Your task to perform on an android device: empty trash in the gmail app Image 0: 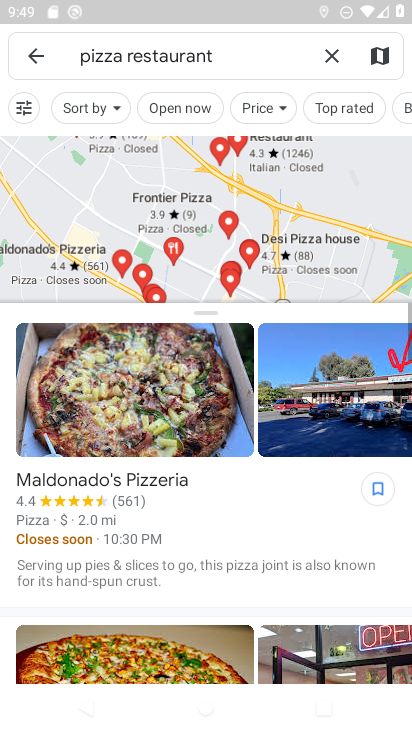
Step 0: press home button
Your task to perform on an android device: empty trash in the gmail app Image 1: 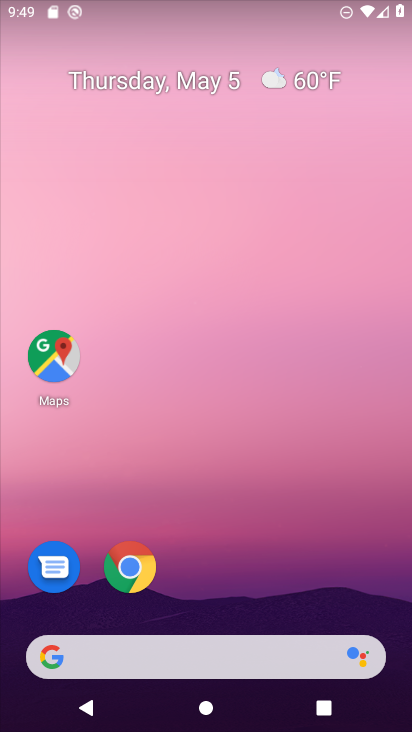
Step 1: drag from (226, 713) to (226, 94)
Your task to perform on an android device: empty trash in the gmail app Image 2: 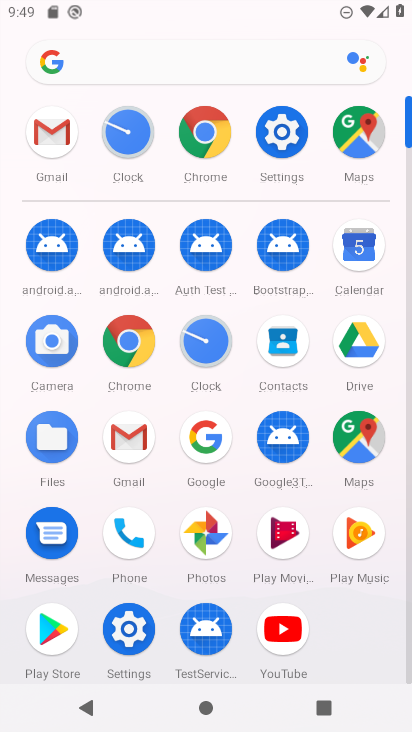
Step 2: click (126, 434)
Your task to perform on an android device: empty trash in the gmail app Image 3: 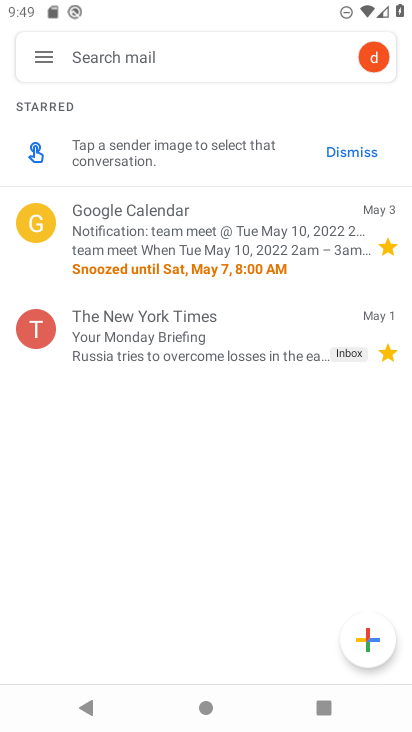
Step 3: click (42, 52)
Your task to perform on an android device: empty trash in the gmail app Image 4: 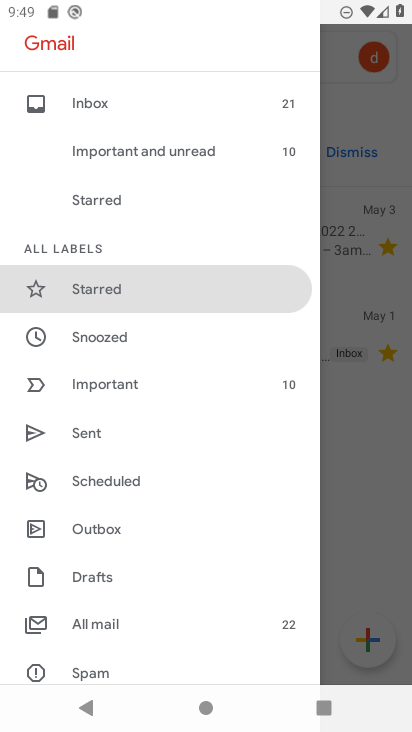
Step 4: drag from (131, 661) to (147, 310)
Your task to perform on an android device: empty trash in the gmail app Image 5: 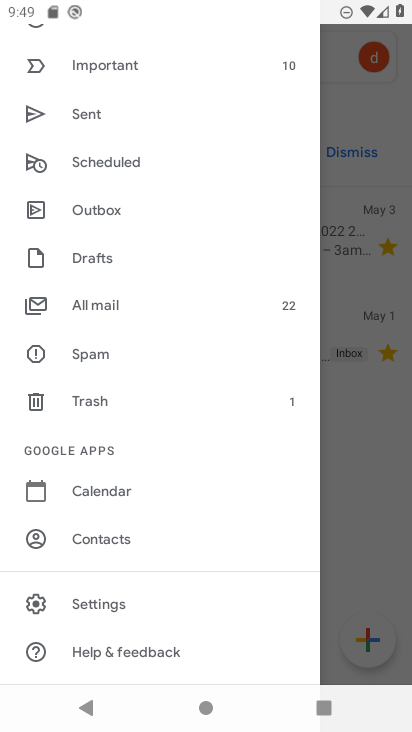
Step 5: click (89, 395)
Your task to perform on an android device: empty trash in the gmail app Image 6: 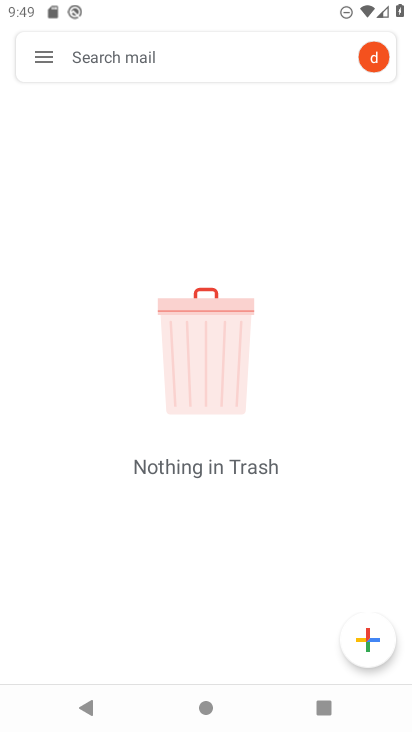
Step 6: task complete